Your task to perform on an android device: Open the web browser Image 0: 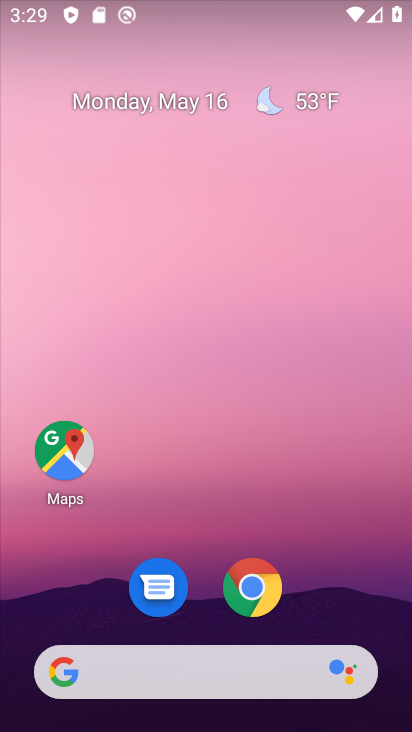
Step 0: drag from (93, 638) to (281, 56)
Your task to perform on an android device: Open the web browser Image 1: 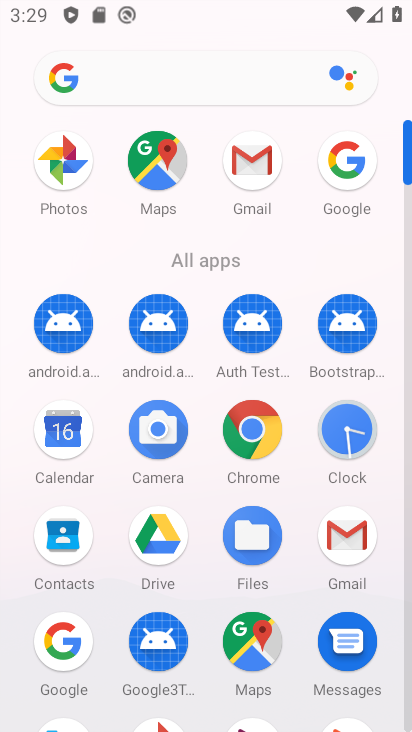
Step 1: click (46, 653)
Your task to perform on an android device: Open the web browser Image 2: 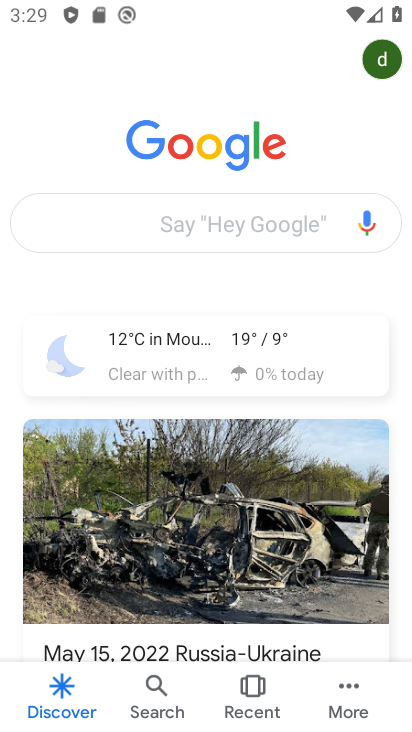
Step 2: task complete